Your task to perform on an android device: Open network settings Image 0: 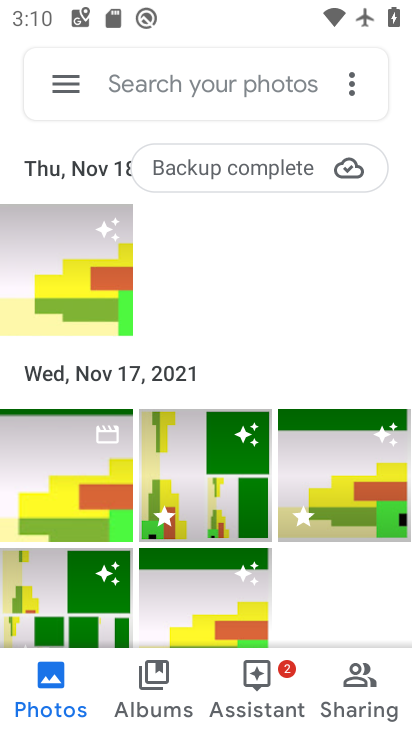
Step 0: press home button
Your task to perform on an android device: Open network settings Image 1: 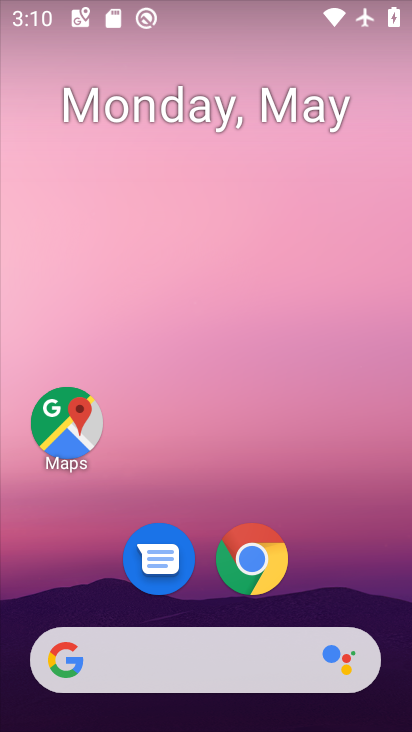
Step 1: drag from (225, 608) to (188, 0)
Your task to perform on an android device: Open network settings Image 2: 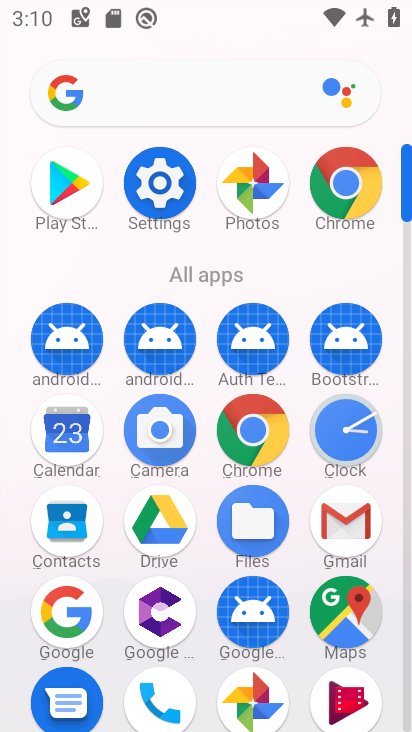
Step 2: click (149, 191)
Your task to perform on an android device: Open network settings Image 3: 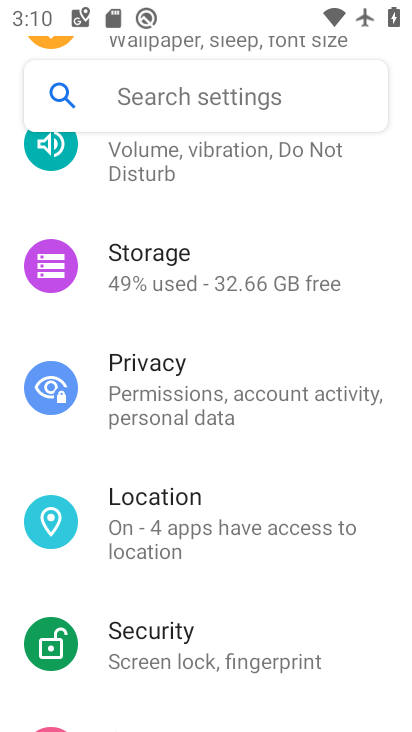
Step 3: drag from (191, 216) to (123, 481)
Your task to perform on an android device: Open network settings Image 4: 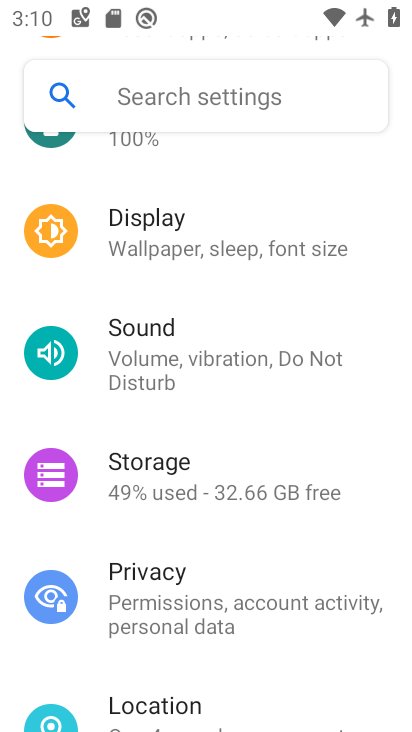
Step 4: drag from (228, 271) to (150, 631)
Your task to perform on an android device: Open network settings Image 5: 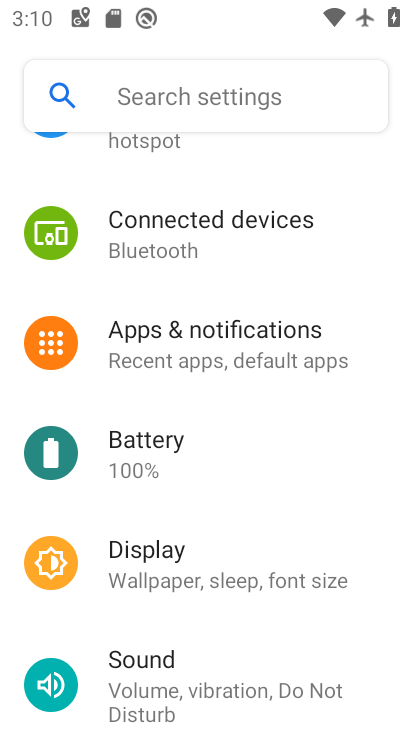
Step 5: drag from (208, 352) to (161, 720)
Your task to perform on an android device: Open network settings Image 6: 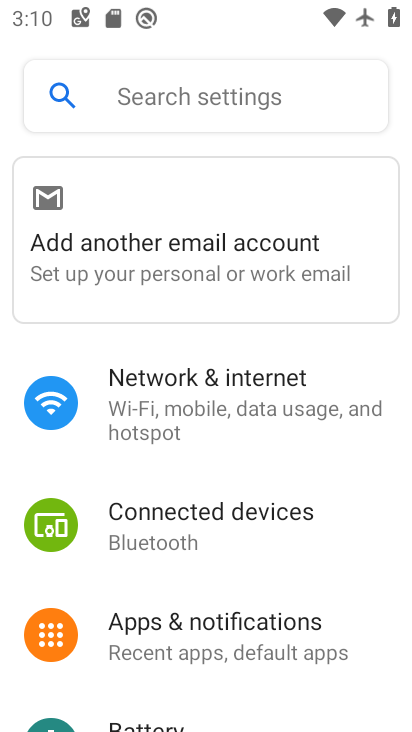
Step 6: click (207, 409)
Your task to perform on an android device: Open network settings Image 7: 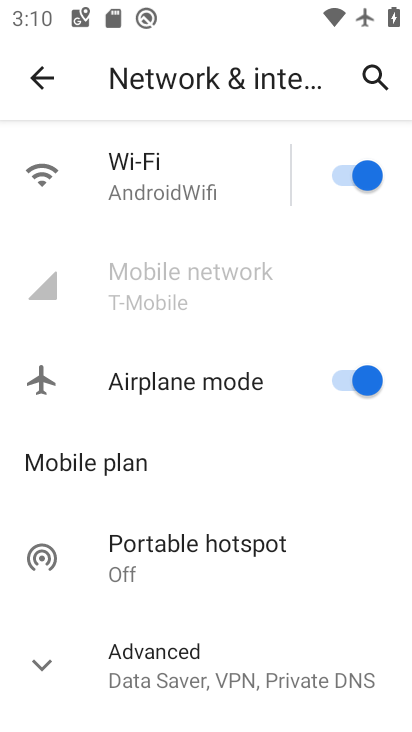
Step 7: task complete